Your task to perform on an android device: Go to Google maps Image 0: 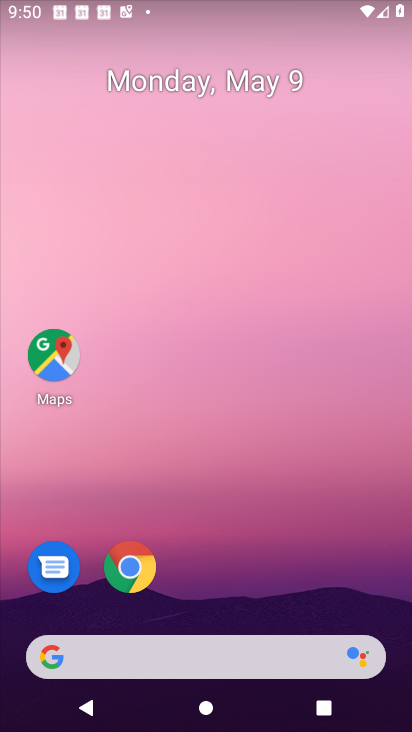
Step 0: click (333, 631)
Your task to perform on an android device: Go to Google maps Image 1: 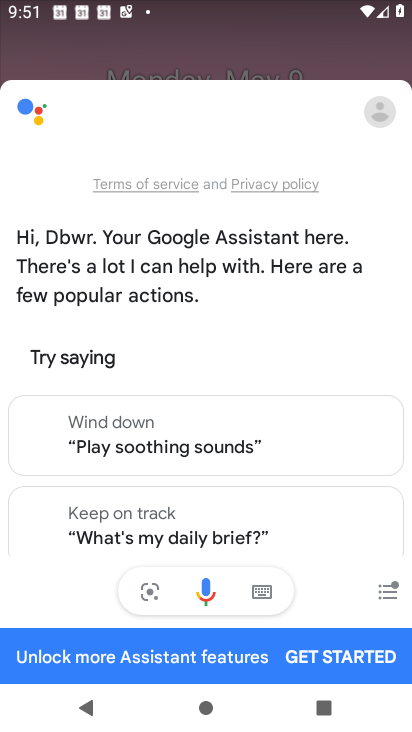
Step 1: click (264, 292)
Your task to perform on an android device: Go to Google maps Image 2: 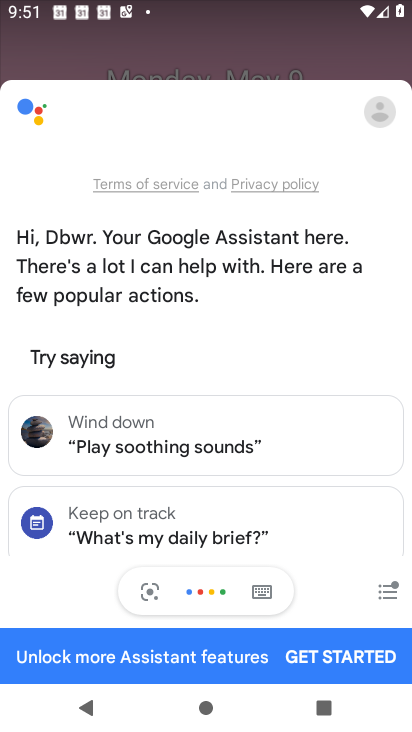
Step 2: click (267, 54)
Your task to perform on an android device: Go to Google maps Image 3: 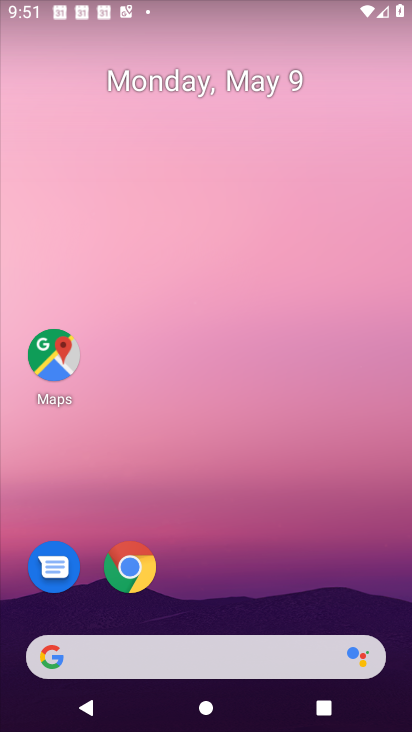
Step 3: click (45, 372)
Your task to perform on an android device: Go to Google maps Image 4: 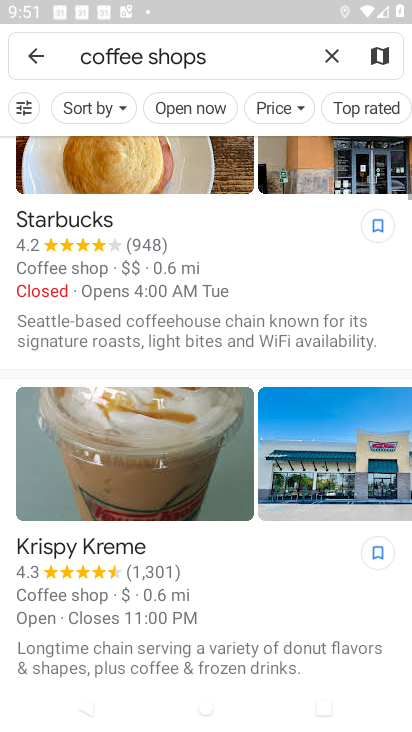
Step 4: task complete